Your task to perform on an android device: Show me popular videos on Youtube Image 0: 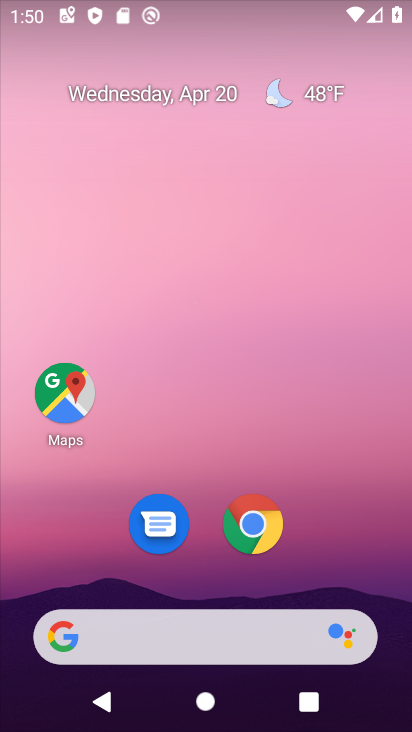
Step 0: drag from (371, 495) to (314, 111)
Your task to perform on an android device: Show me popular videos on Youtube Image 1: 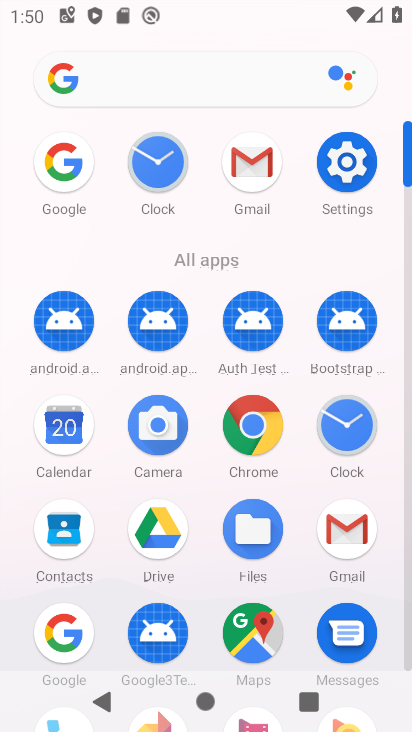
Step 1: drag from (309, 488) to (283, 173)
Your task to perform on an android device: Show me popular videos on Youtube Image 2: 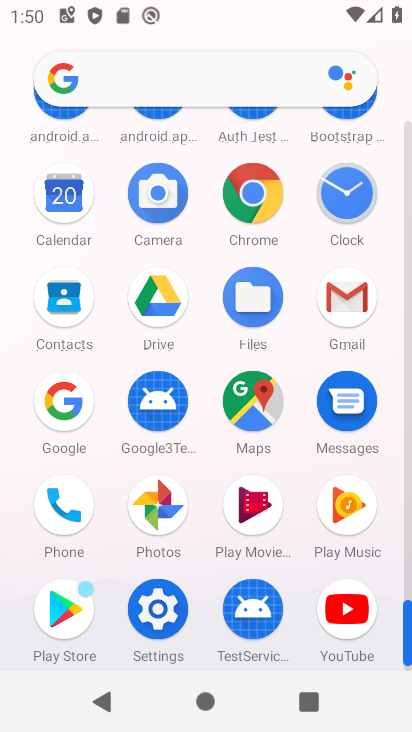
Step 2: click (345, 604)
Your task to perform on an android device: Show me popular videos on Youtube Image 3: 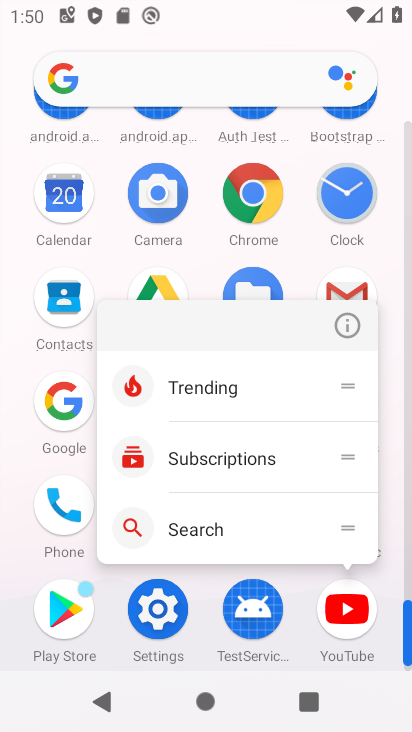
Step 3: click (345, 599)
Your task to perform on an android device: Show me popular videos on Youtube Image 4: 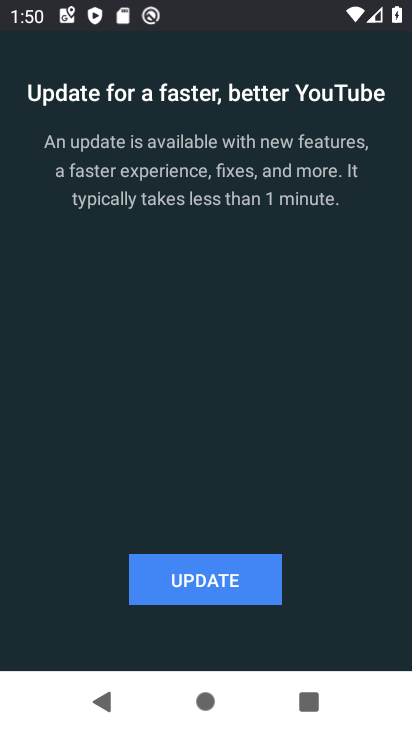
Step 4: click (258, 593)
Your task to perform on an android device: Show me popular videos on Youtube Image 5: 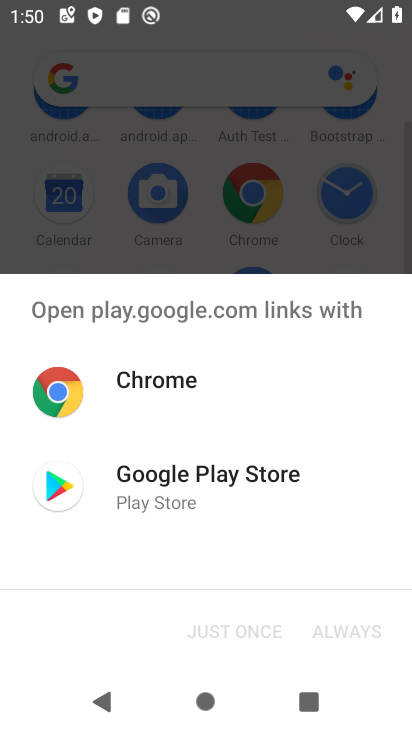
Step 5: click (256, 473)
Your task to perform on an android device: Show me popular videos on Youtube Image 6: 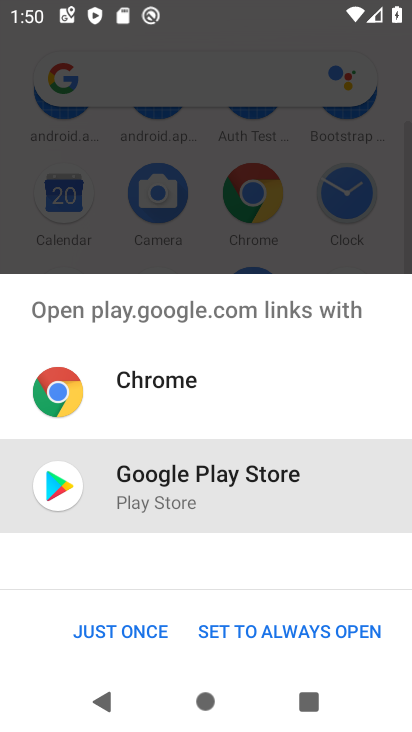
Step 6: click (151, 623)
Your task to perform on an android device: Show me popular videos on Youtube Image 7: 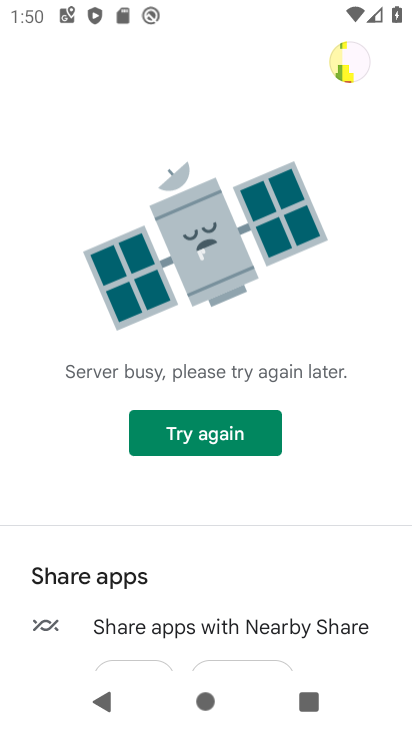
Step 7: click (210, 436)
Your task to perform on an android device: Show me popular videos on Youtube Image 8: 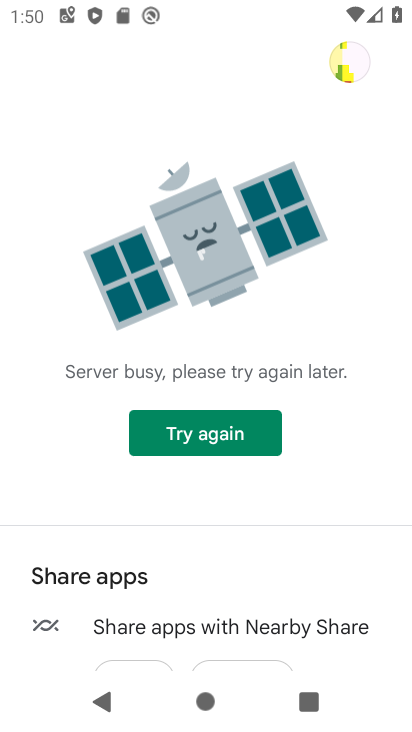
Step 8: task complete